Your task to perform on an android device: open a bookmark in the chrome app Image 0: 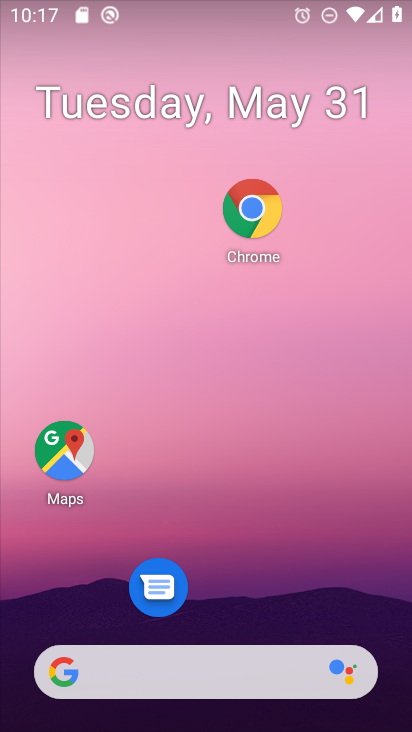
Step 0: click (249, 202)
Your task to perform on an android device: open a bookmark in the chrome app Image 1: 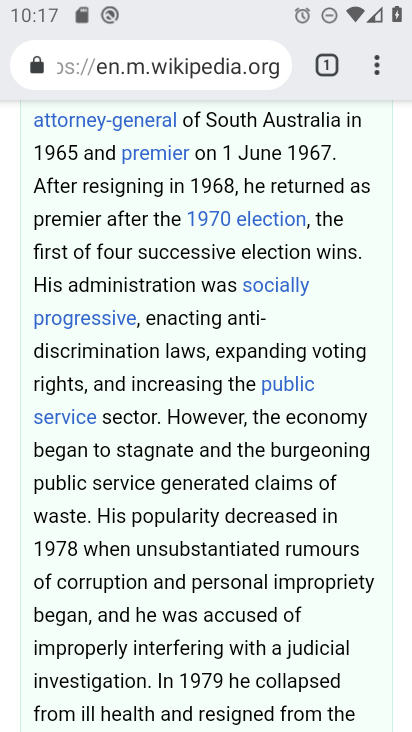
Step 1: click (379, 62)
Your task to perform on an android device: open a bookmark in the chrome app Image 2: 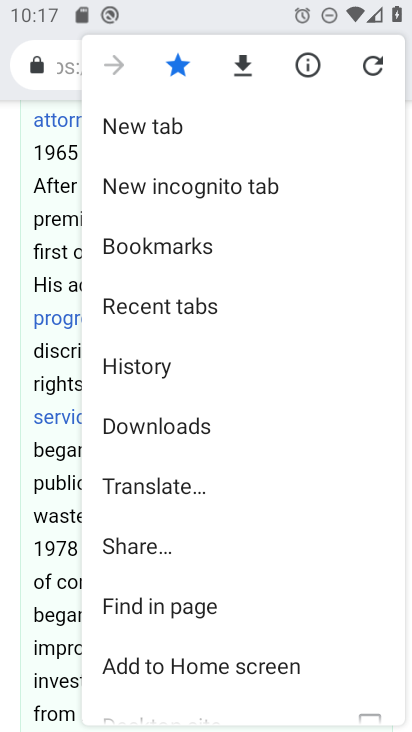
Step 2: click (218, 244)
Your task to perform on an android device: open a bookmark in the chrome app Image 3: 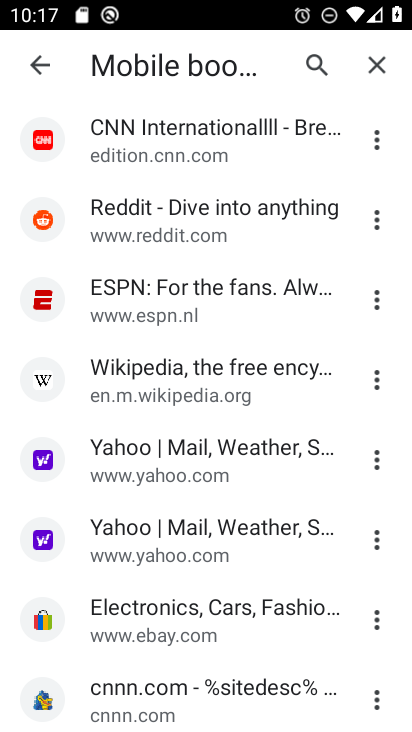
Step 3: click (230, 620)
Your task to perform on an android device: open a bookmark in the chrome app Image 4: 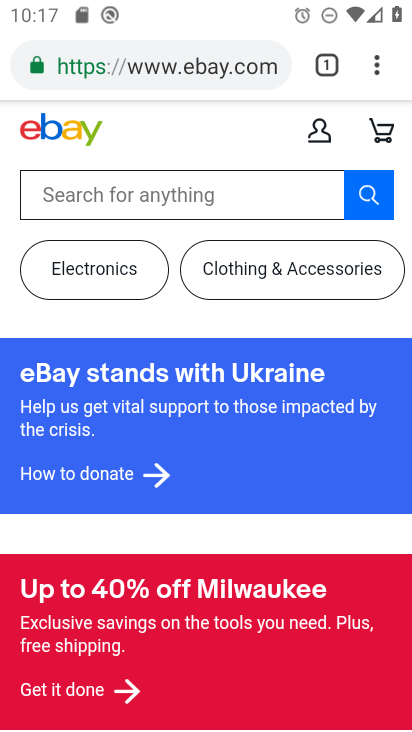
Step 4: task complete